Your task to perform on an android device: move a message to another label in the gmail app Image 0: 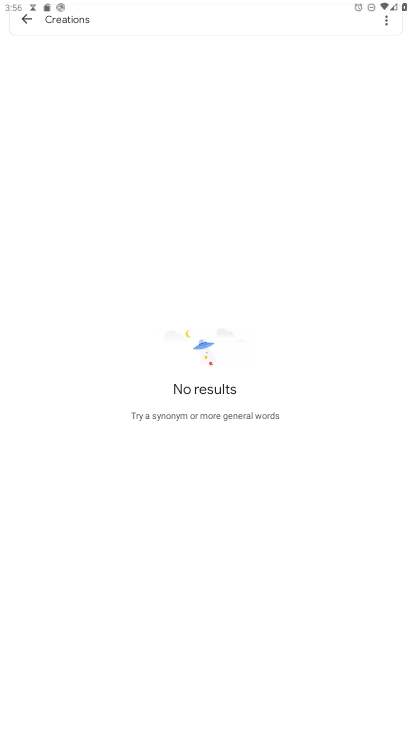
Step 0: press home button
Your task to perform on an android device: move a message to another label in the gmail app Image 1: 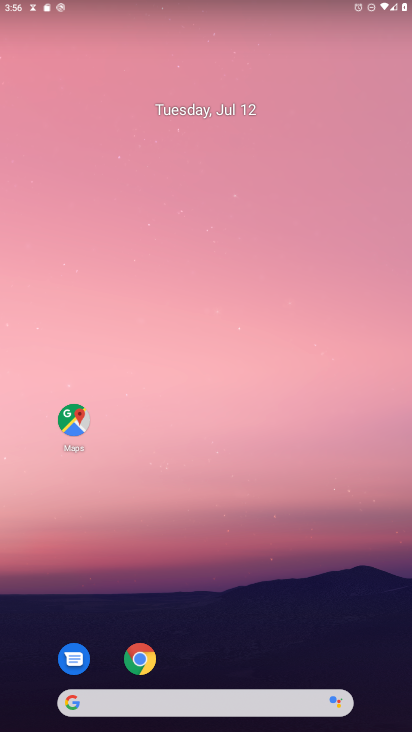
Step 1: drag from (201, 465) to (208, 141)
Your task to perform on an android device: move a message to another label in the gmail app Image 2: 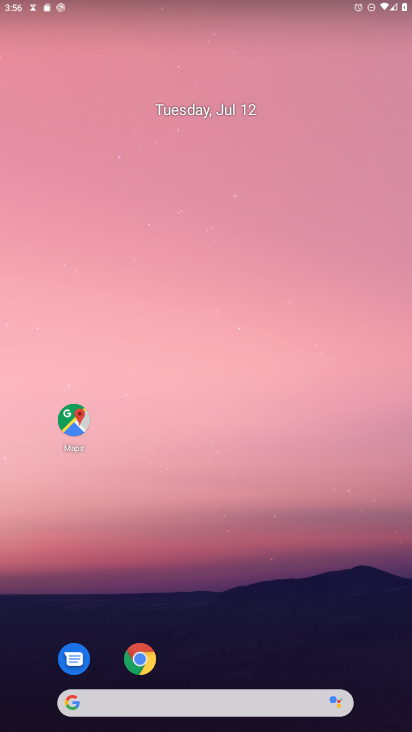
Step 2: drag from (182, 569) to (242, 25)
Your task to perform on an android device: move a message to another label in the gmail app Image 3: 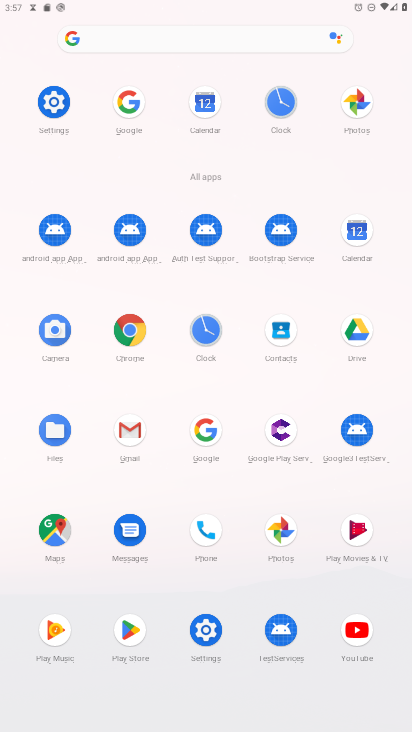
Step 3: click (132, 437)
Your task to perform on an android device: move a message to another label in the gmail app Image 4: 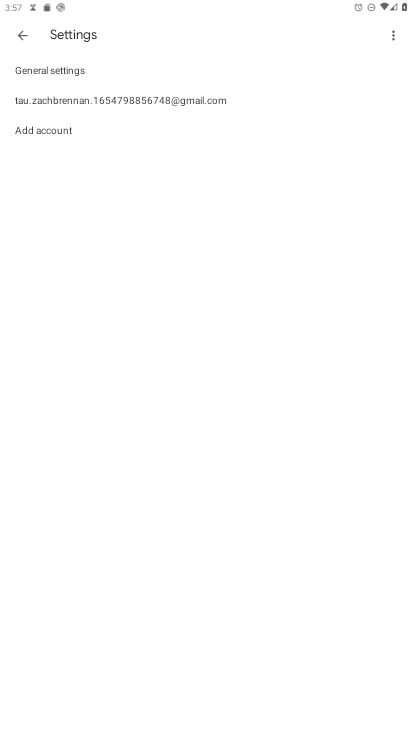
Step 4: click (21, 35)
Your task to perform on an android device: move a message to another label in the gmail app Image 5: 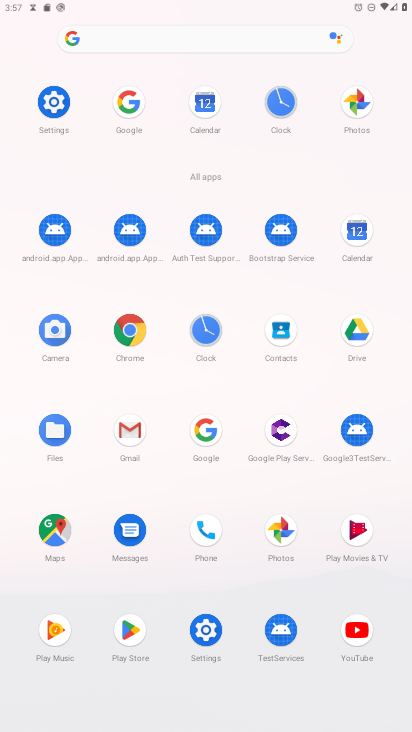
Step 5: click (134, 455)
Your task to perform on an android device: move a message to another label in the gmail app Image 6: 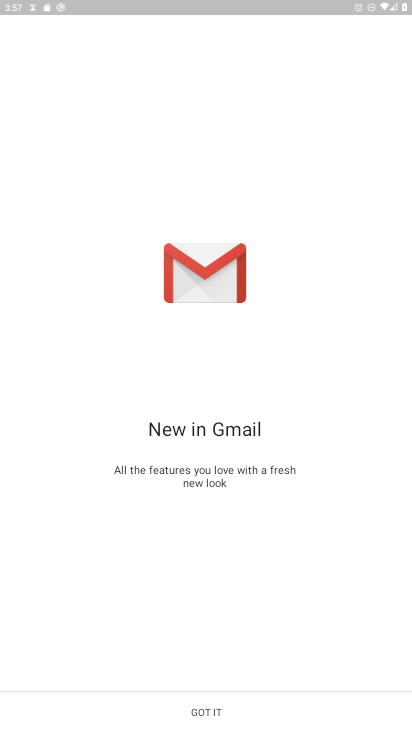
Step 6: click (201, 718)
Your task to perform on an android device: move a message to another label in the gmail app Image 7: 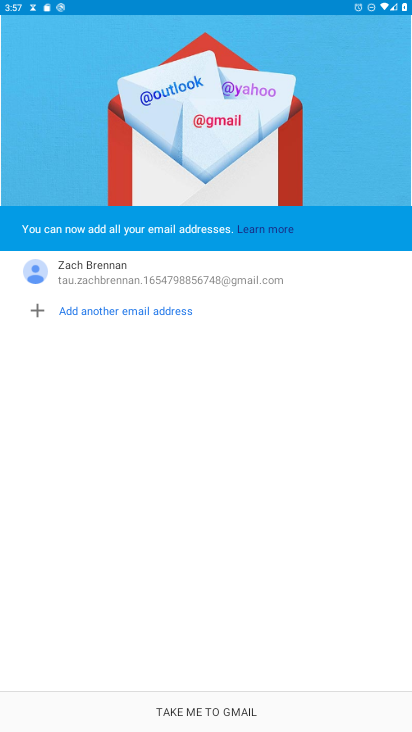
Step 7: click (201, 718)
Your task to perform on an android device: move a message to another label in the gmail app Image 8: 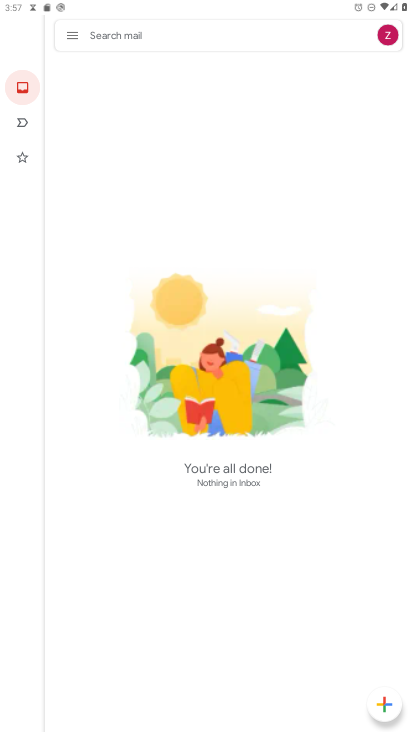
Step 8: task complete